Your task to perform on an android device: turn on notifications settings in the gmail app Image 0: 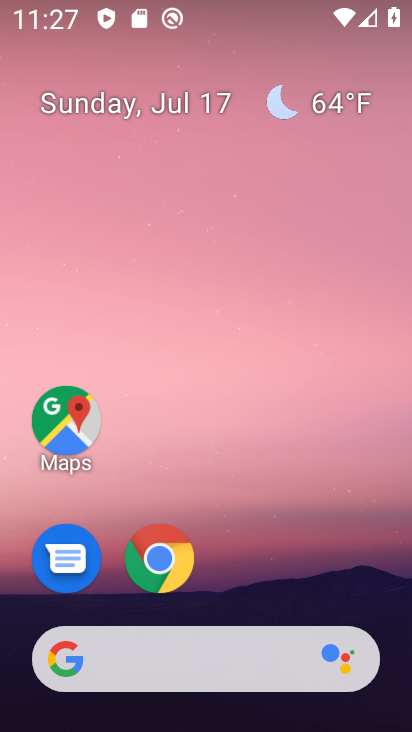
Step 0: drag from (340, 570) to (391, 126)
Your task to perform on an android device: turn on notifications settings in the gmail app Image 1: 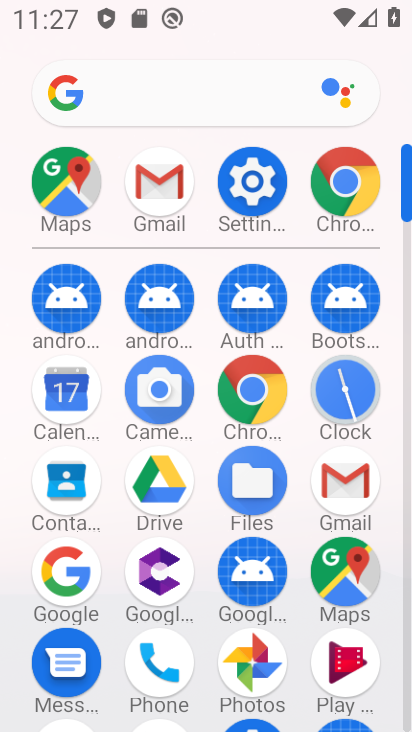
Step 1: click (345, 481)
Your task to perform on an android device: turn on notifications settings in the gmail app Image 2: 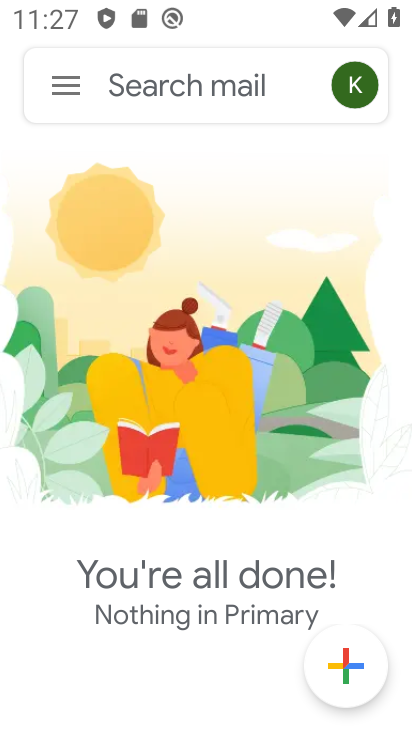
Step 2: click (65, 88)
Your task to perform on an android device: turn on notifications settings in the gmail app Image 3: 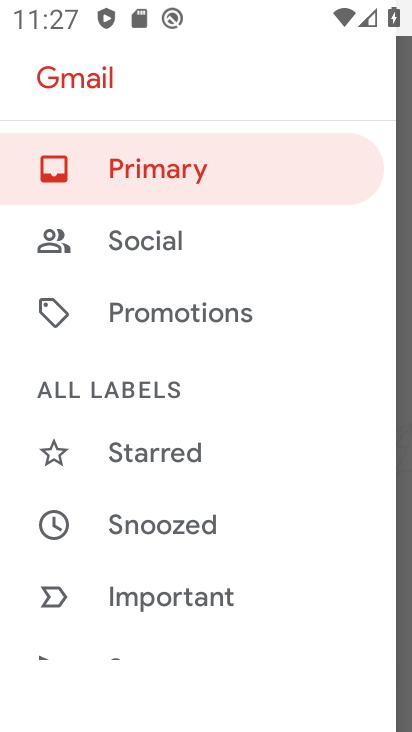
Step 3: drag from (343, 451) to (341, 391)
Your task to perform on an android device: turn on notifications settings in the gmail app Image 4: 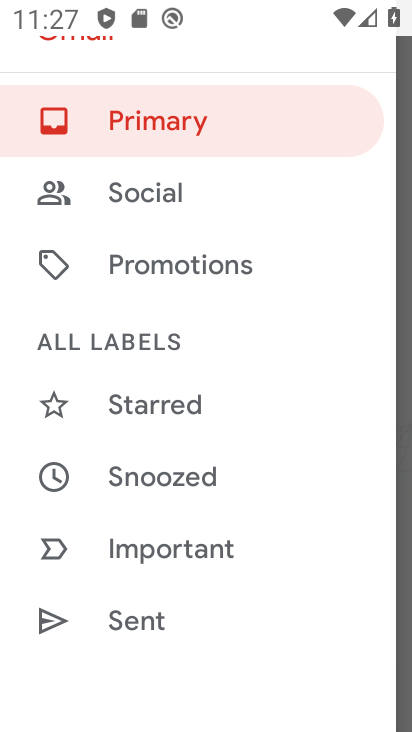
Step 4: drag from (339, 510) to (338, 411)
Your task to perform on an android device: turn on notifications settings in the gmail app Image 5: 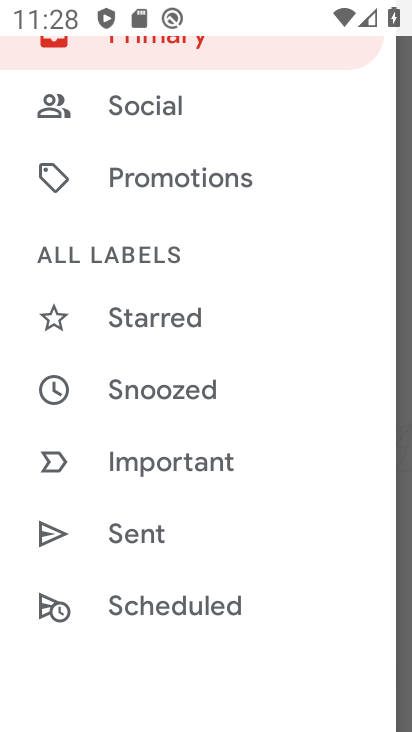
Step 5: drag from (336, 528) to (331, 408)
Your task to perform on an android device: turn on notifications settings in the gmail app Image 6: 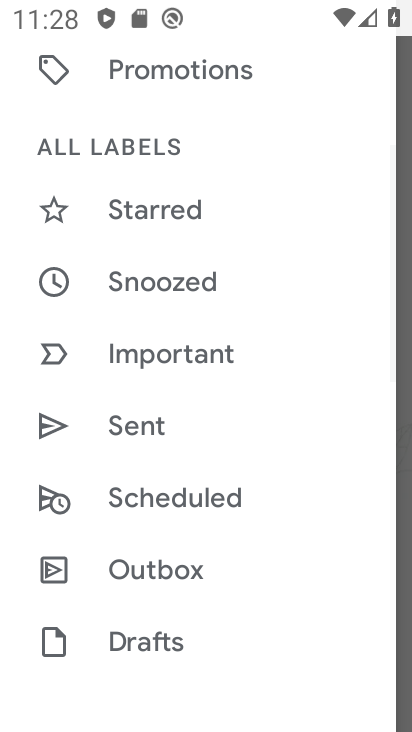
Step 6: drag from (329, 504) to (329, 393)
Your task to perform on an android device: turn on notifications settings in the gmail app Image 7: 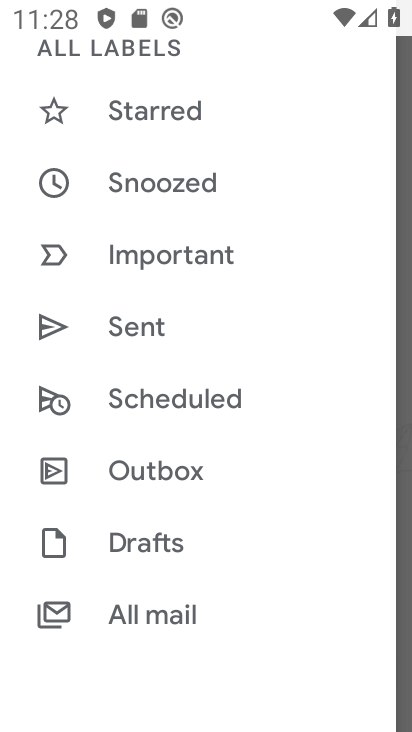
Step 7: drag from (344, 468) to (331, 383)
Your task to perform on an android device: turn on notifications settings in the gmail app Image 8: 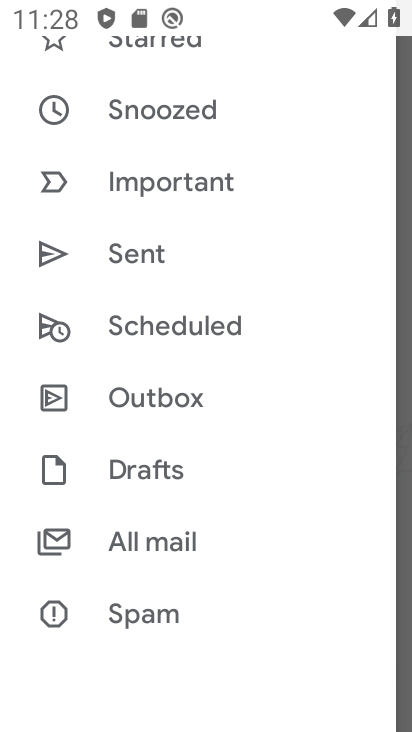
Step 8: drag from (318, 495) to (307, 404)
Your task to perform on an android device: turn on notifications settings in the gmail app Image 9: 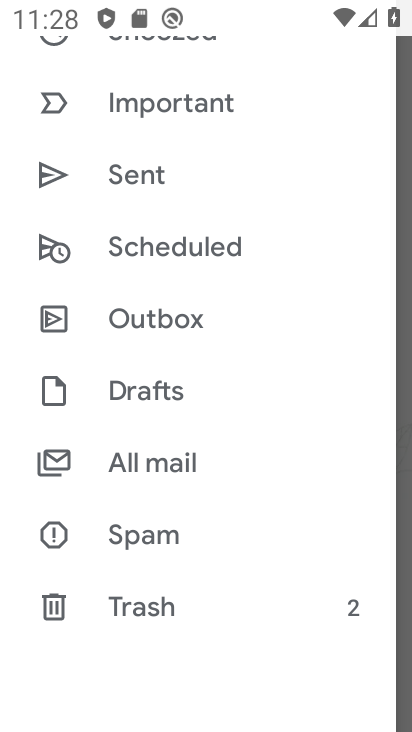
Step 9: drag from (285, 470) to (286, 372)
Your task to perform on an android device: turn on notifications settings in the gmail app Image 10: 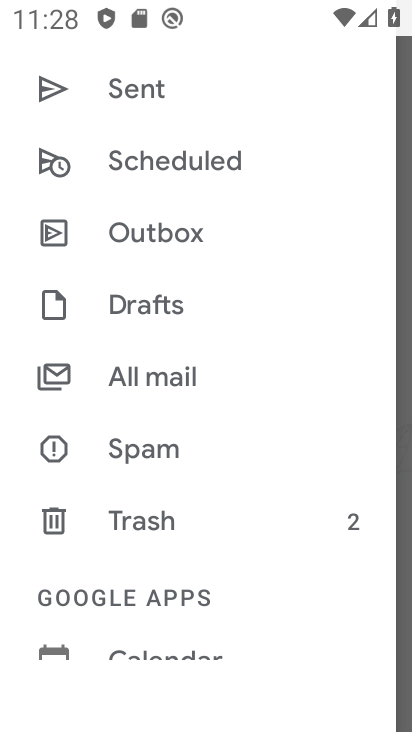
Step 10: drag from (279, 452) to (281, 346)
Your task to perform on an android device: turn on notifications settings in the gmail app Image 11: 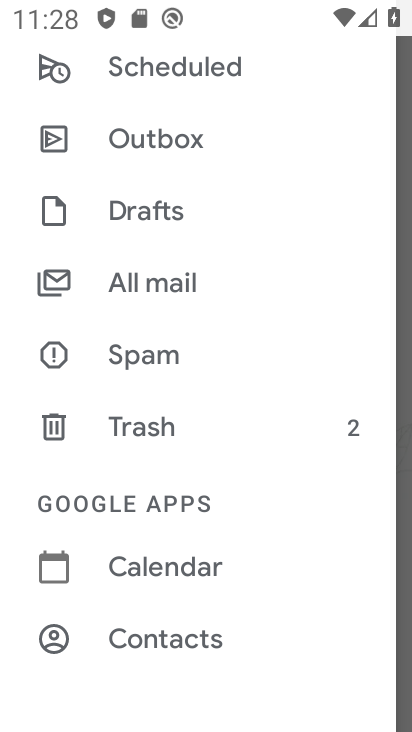
Step 11: drag from (281, 454) to (281, 338)
Your task to perform on an android device: turn on notifications settings in the gmail app Image 12: 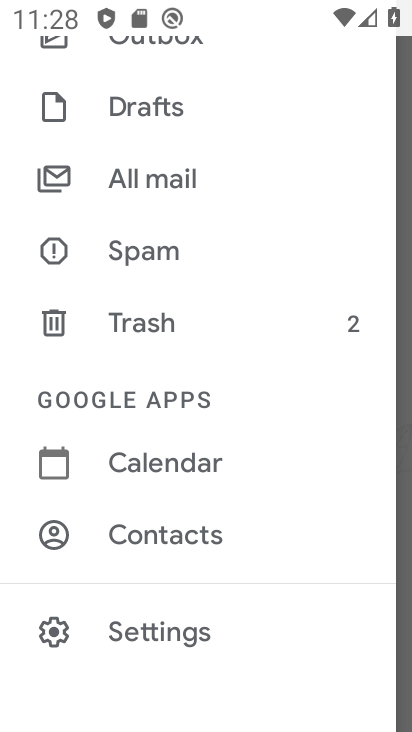
Step 12: drag from (290, 488) to (286, 324)
Your task to perform on an android device: turn on notifications settings in the gmail app Image 13: 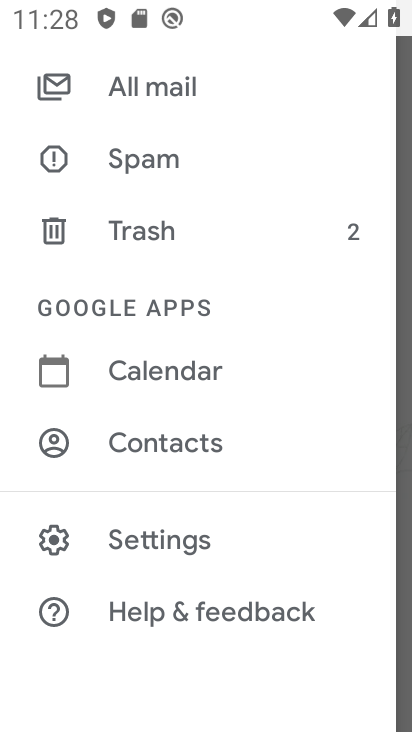
Step 13: click (208, 553)
Your task to perform on an android device: turn on notifications settings in the gmail app Image 14: 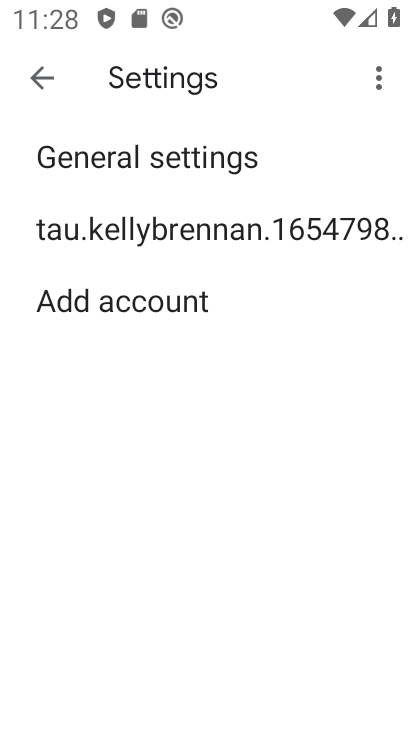
Step 14: click (261, 227)
Your task to perform on an android device: turn on notifications settings in the gmail app Image 15: 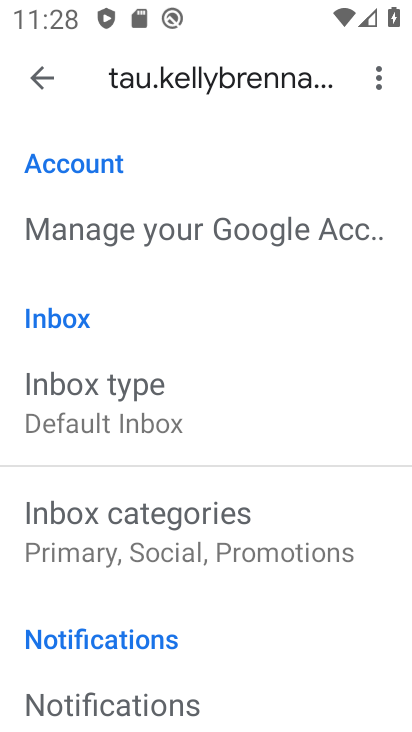
Step 15: drag from (321, 462) to (320, 371)
Your task to perform on an android device: turn on notifications settings in the gmail app Image 16: 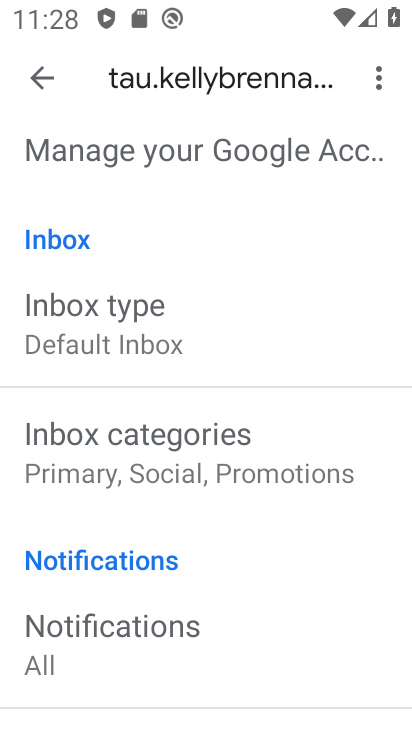
Step 16: drag from (330, 528) to (332, 409)
Your task to perform on an android device: turn on notifications settings in the gmail app Image 17: 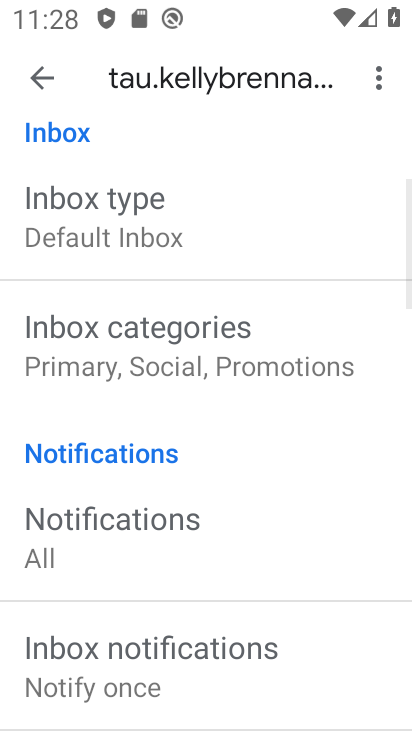
Step 17: drag from (338, 528) to (339, 439)
Your task to perform on an android device: turn on notifications settings in the gmail app Image 18: 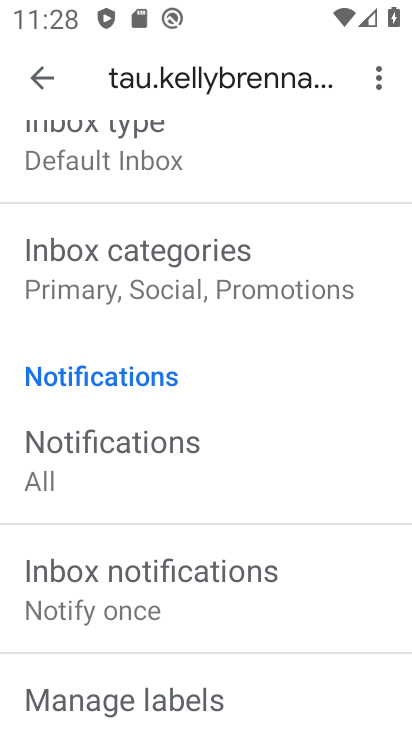
Step 18: drag from (338, 576) to (327, 432)
Your task to perform on an android device: turn on notifications settings in the gmail app Image 19: 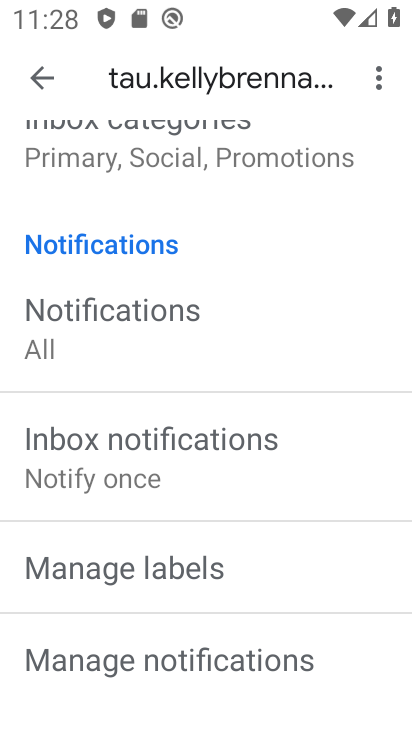
Step 19: drag from (321, 529) to (321, 414)
Your task to perform on an android device: turn on notifications settings in the gmail app Image 20: 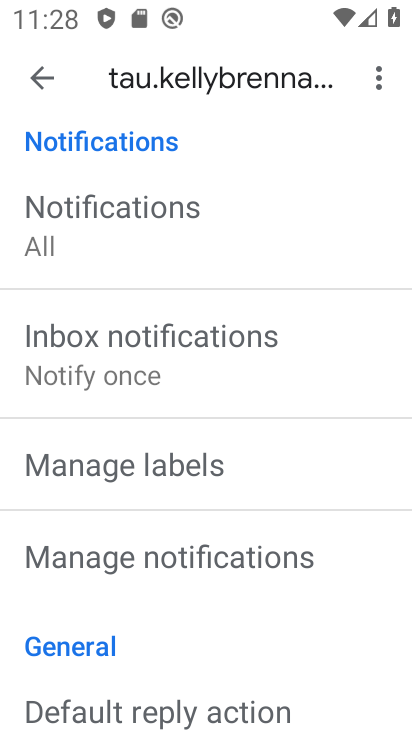
Step 20: drag from (316, 578) to (314, 411)
Your task to perform on an android device: turn on notifications settings in the gmail app Image 21: 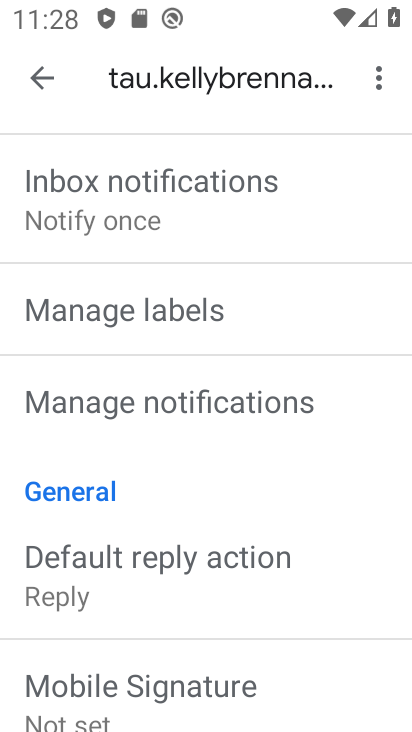
Step 21: click (304, 405)
Your task to perform on an android device: turn on notifications settings in the gmail app Image 22: 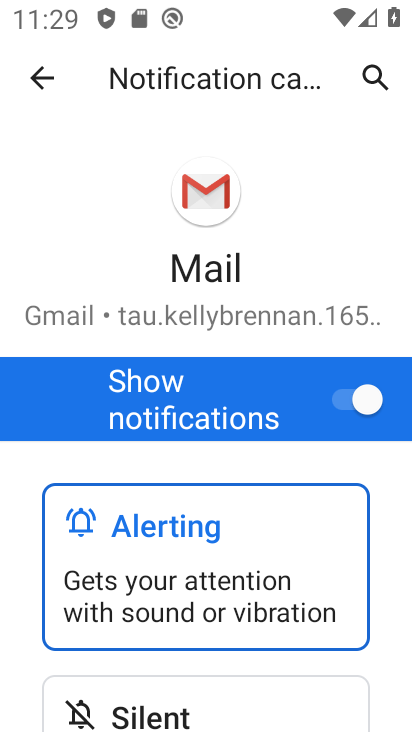
Step 22: task complete